Your task to perform on an android device: open app "Gmail" (install if not already installed), go to login, and select forgot password Image 0: 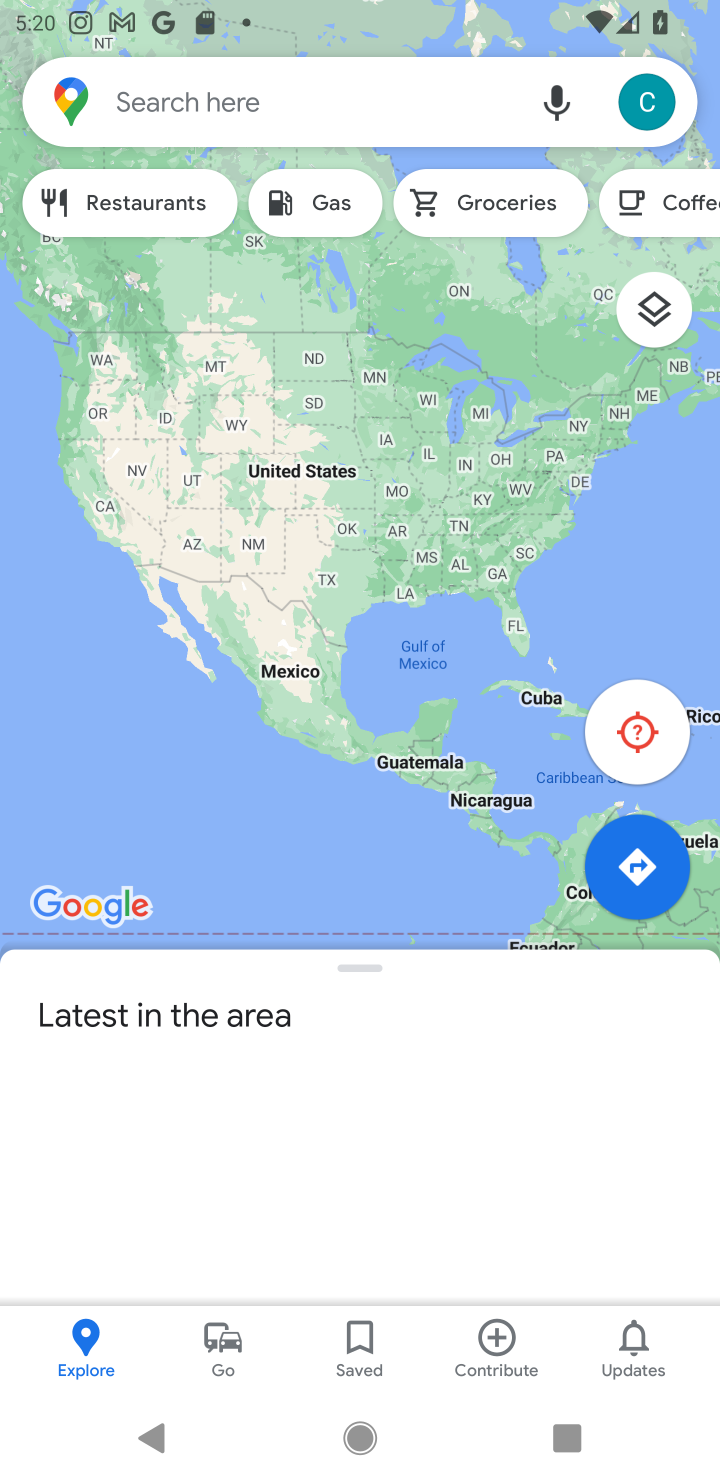
Step 0: press home button
Your task to perform on an android device: open app "Gmail" (install if not already installed), go to login, and select forgot password Image 1: 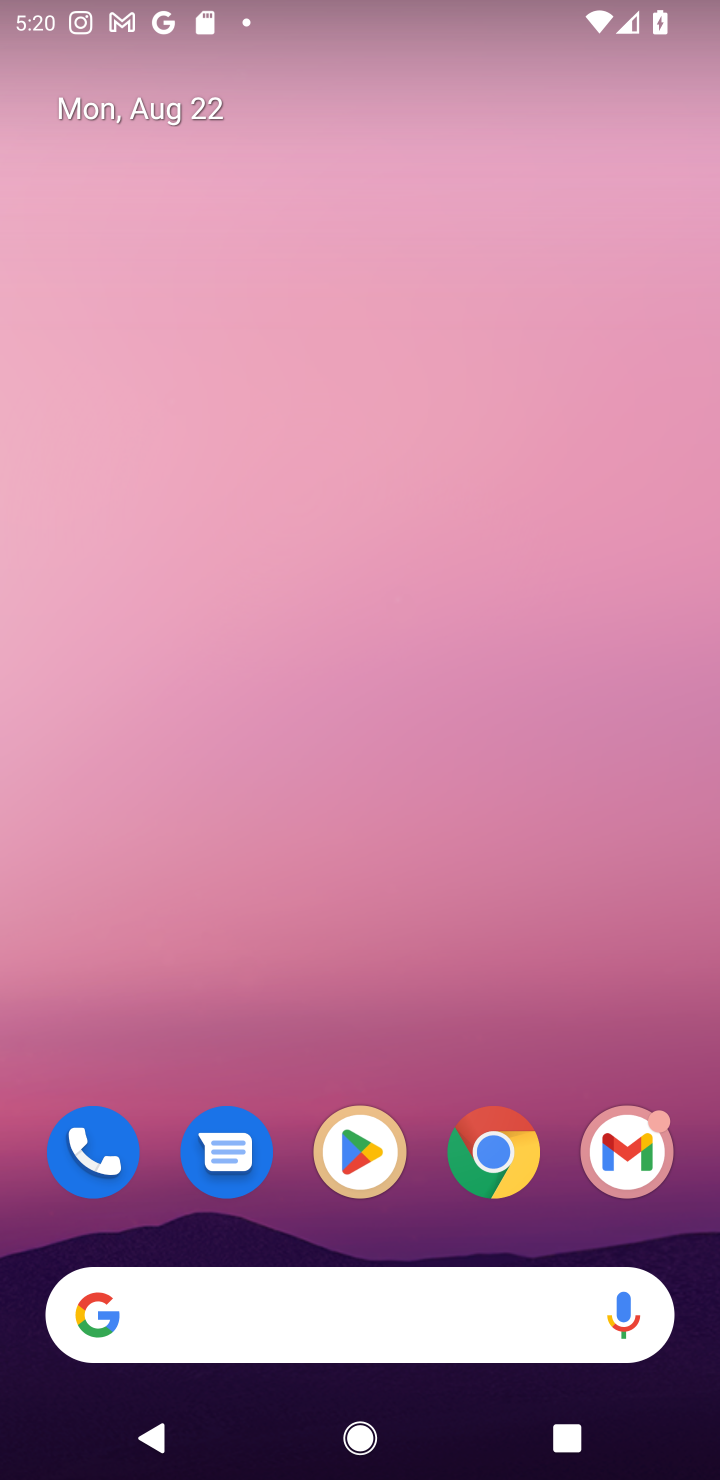
Step 1: drag from (360, 1196) to (492, 30)
Your task to perform on an android device: open app "Gmail" (install if not already installed), go to login, and select forgot password Image 2: 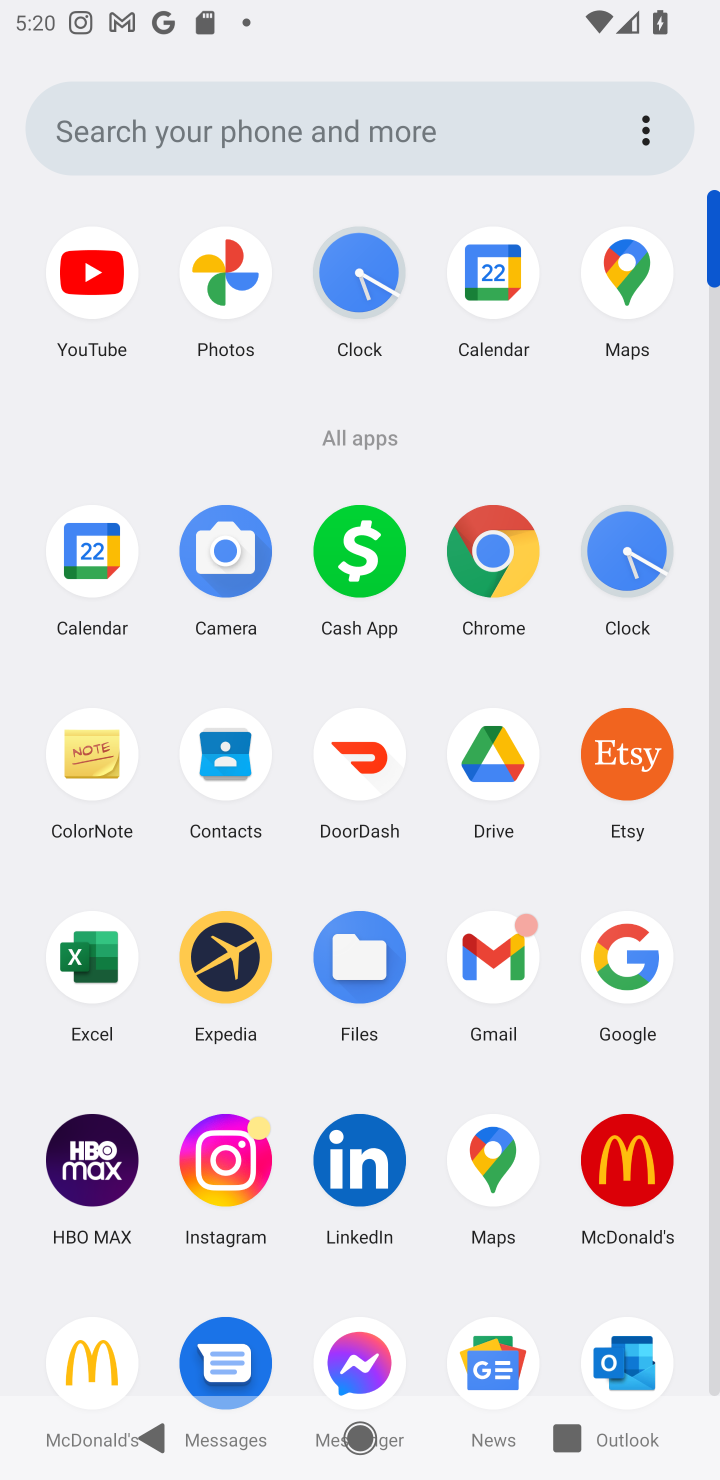
Step 2: click (491, 958)
Your task to perform on an android device: open app "Gmail" (install if not already installed), go to login, and select forgot password Image 3: 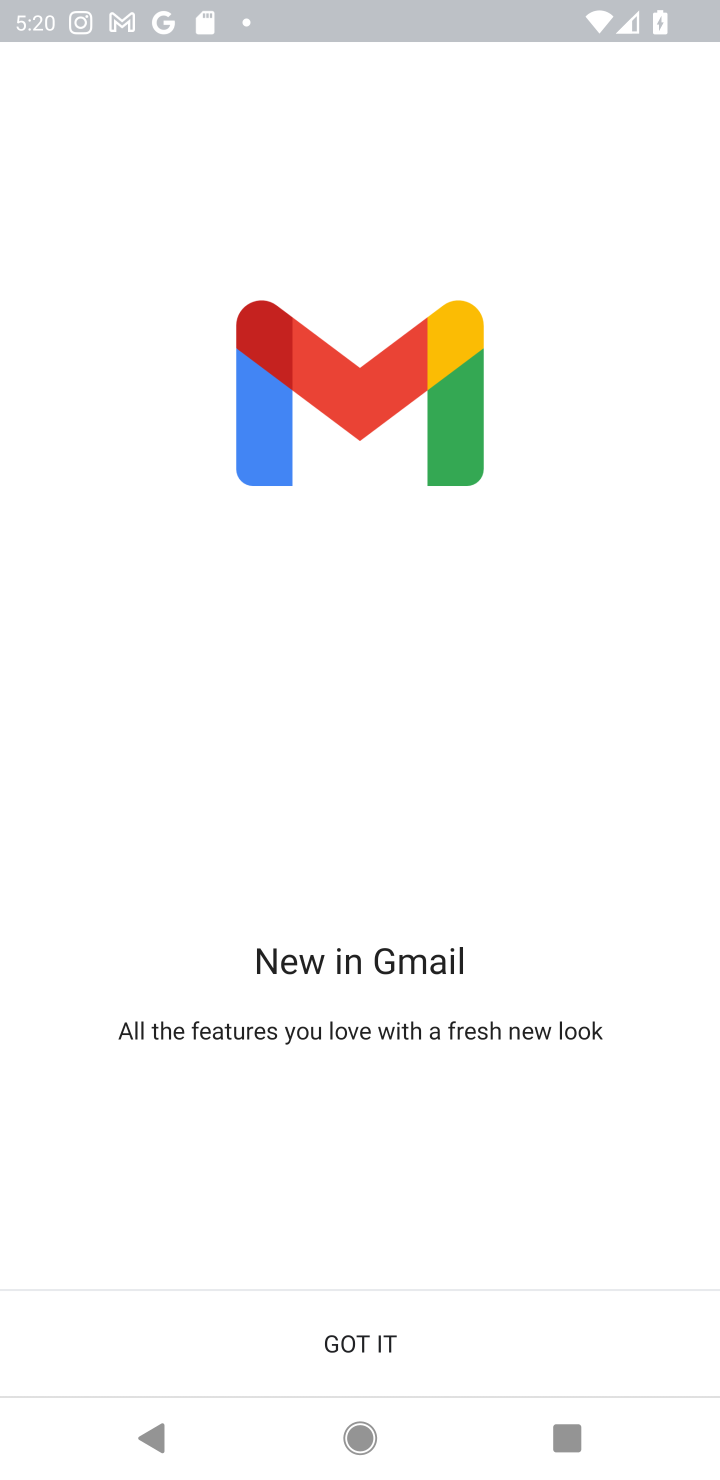
Step 3: click (469, 1324)
Your task to perform on an android device: open app "Gmail" (install if not already installed), go to login, and select forgot password Image 4: 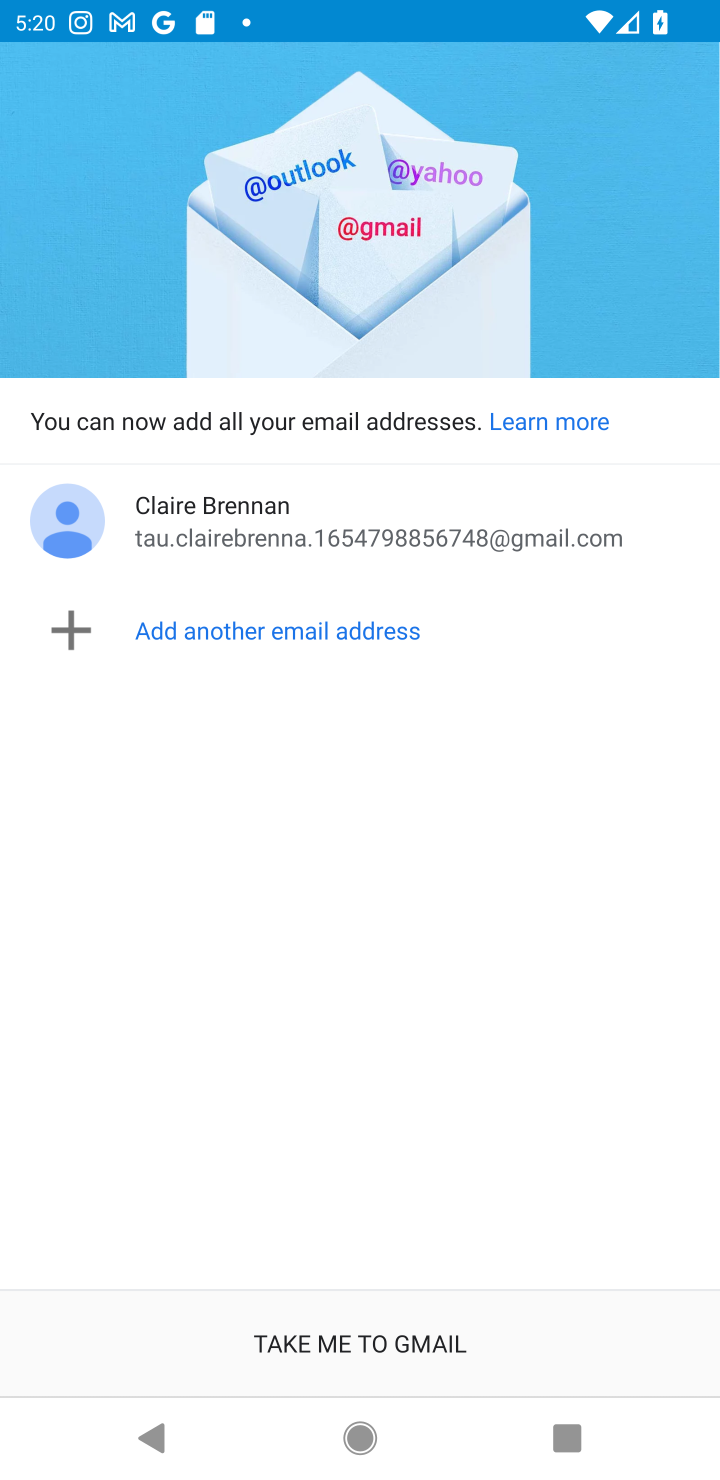
Step 4: click (159, 620)
Your task to perform on an android device: open app "Gmail" (install if not already installed), go to login, and select forgot password Image 5: 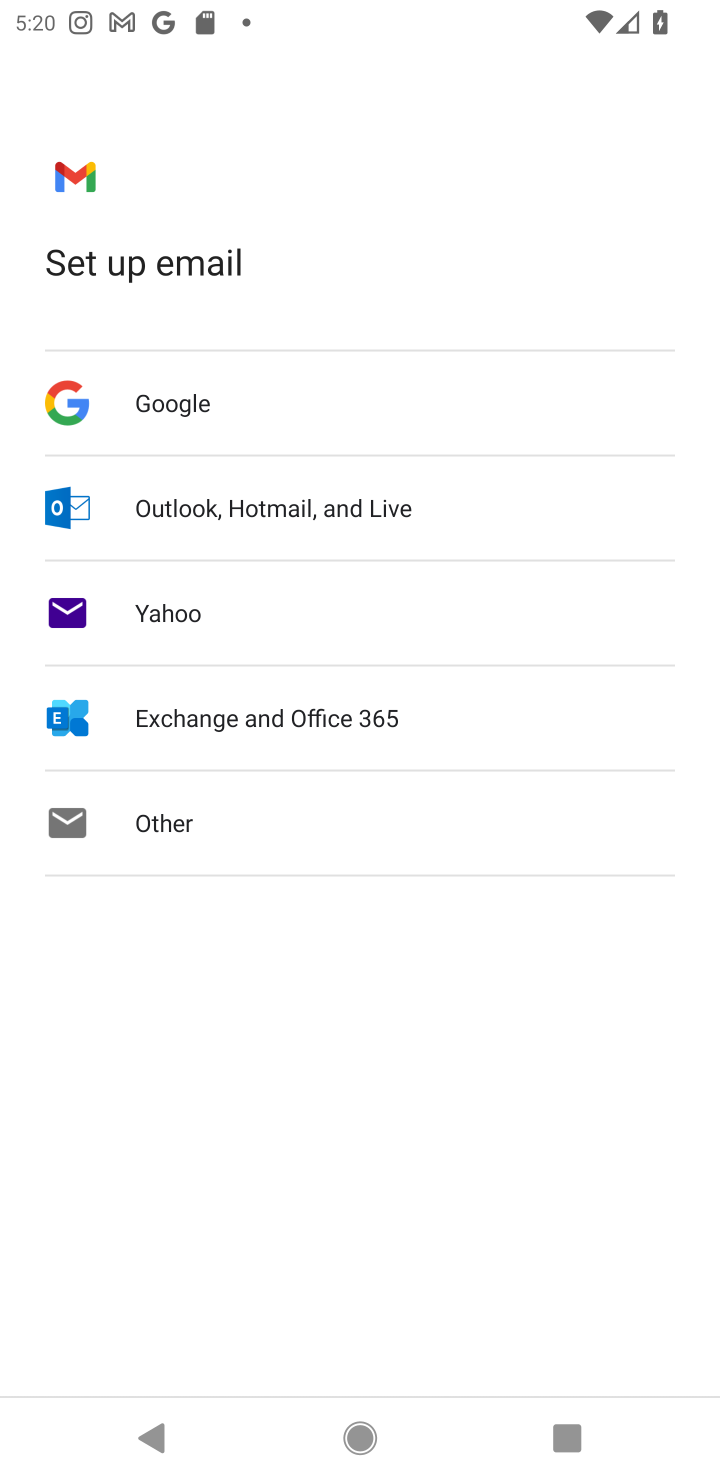
Step 5: click (108, 407)
Your task to perform on an android device: open app "Gmail" (install if not already installed), go to login, and select forgot password Image 6: 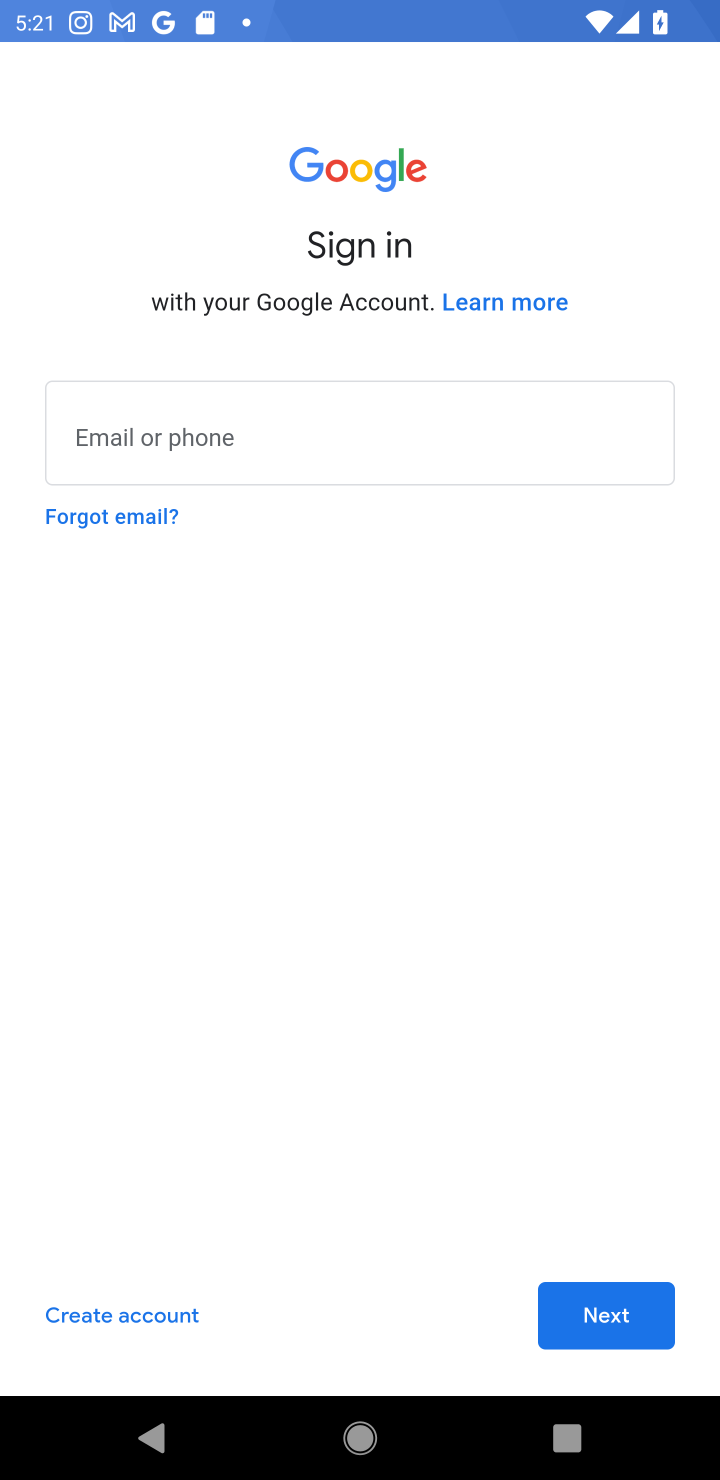
Step 6: click (111, 520)
Your task to perform on an android device: open app "Gmail" (install if not already installed), go to login, and select forgot password Image 7: 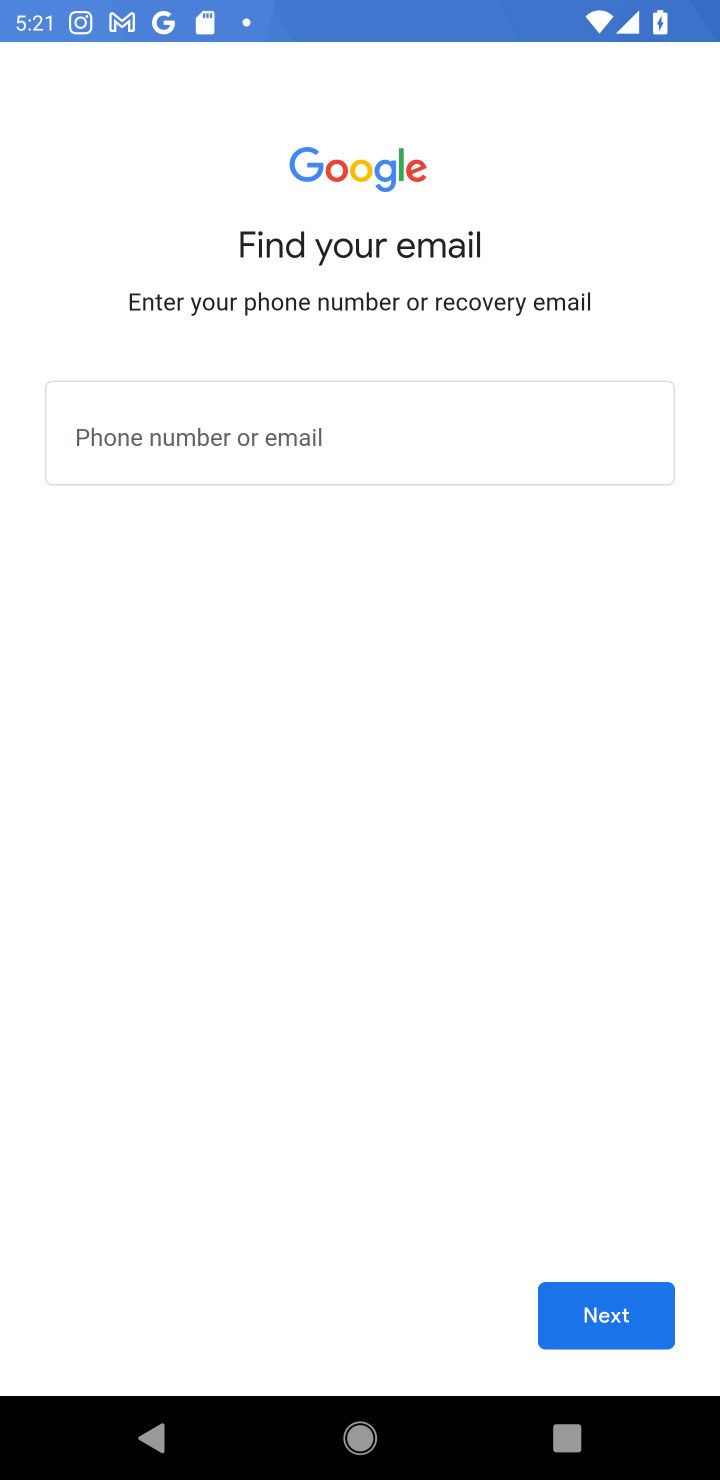
Step 7: task complete